Your task to perform on an android device: change notifications settings Image 0: 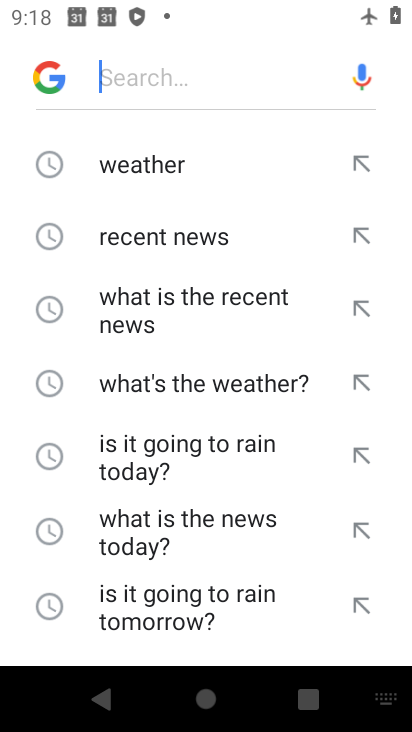
Step 0: press home button
Your task to perform on an android device: change notifications settings Image 1: 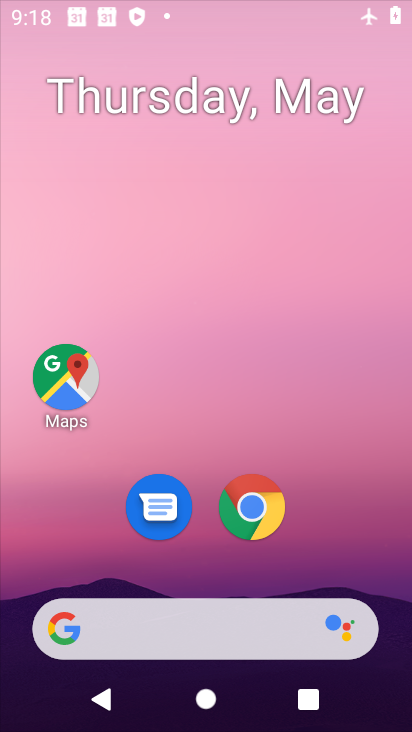
Step 1: drag from (266, 638) to (210, 59)
Your task to perform on an android device: change notifications settings Image 2: 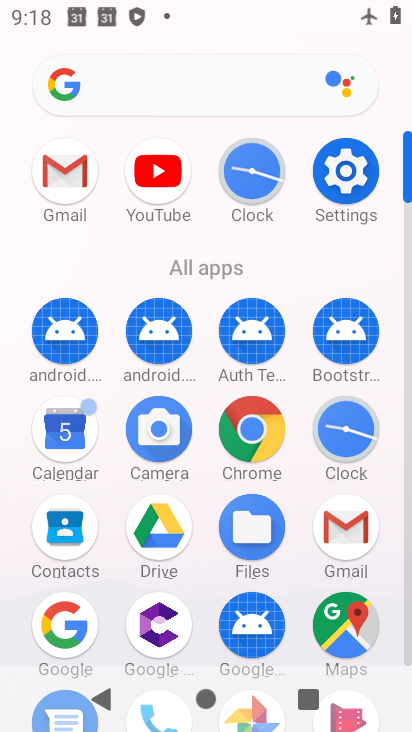
Step 2: click (362, 182)
Your task to perform on an android device: change notifications settings Image 3: 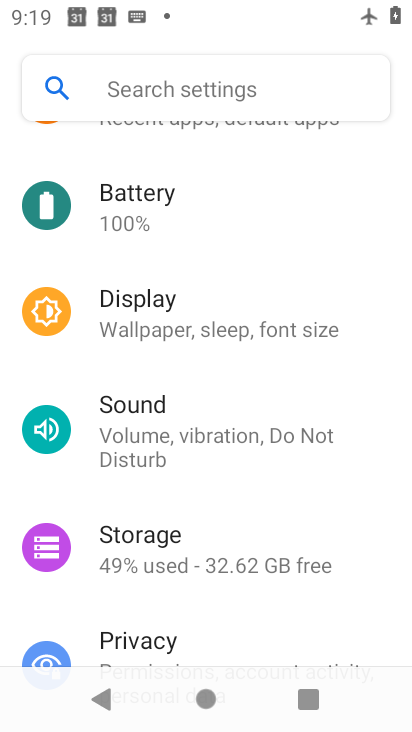
Step 3: drag from (289, 295) to (344, 520)
Your task to perform on an android device: change notifications settings Image 4: 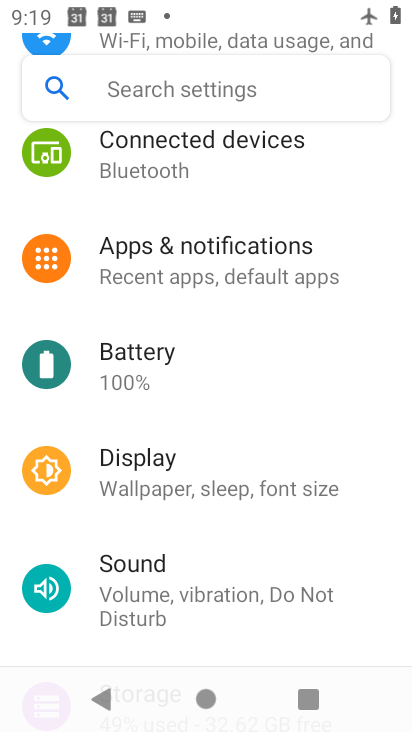
Step 4: click (234, 271)
Your task to perform on an android device: change notifications settings Image 5: 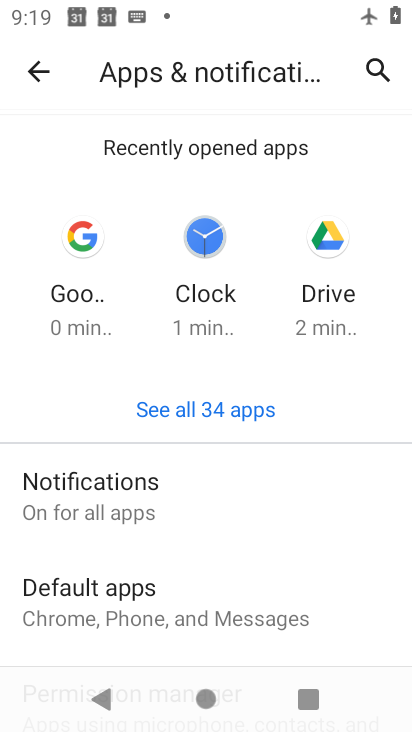
Step 5: drag from (235, 514) to (275, 309)
Your task to perform on an android device: change notifications settings Image 6: 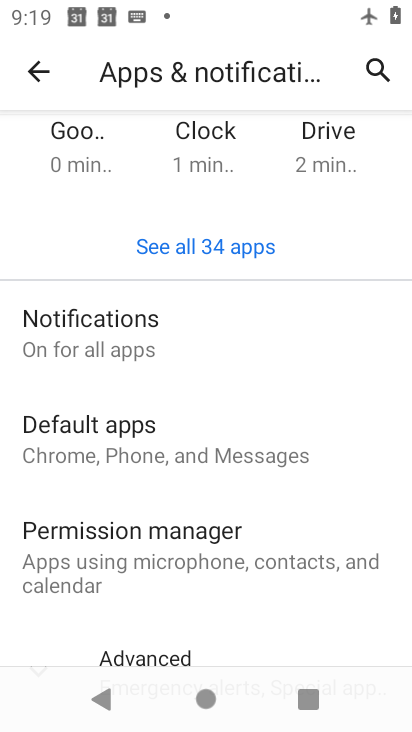
Step 6: click (257, 344)
Your task to perform on an android device: change notifications settings Image 7: 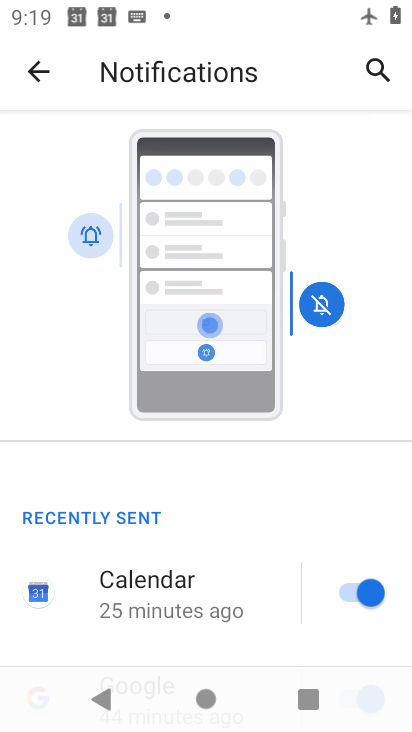
Step 7: drag from (241, 465) to (290, 139)
Your task to perform on an android device: change notifications settings Image 8: 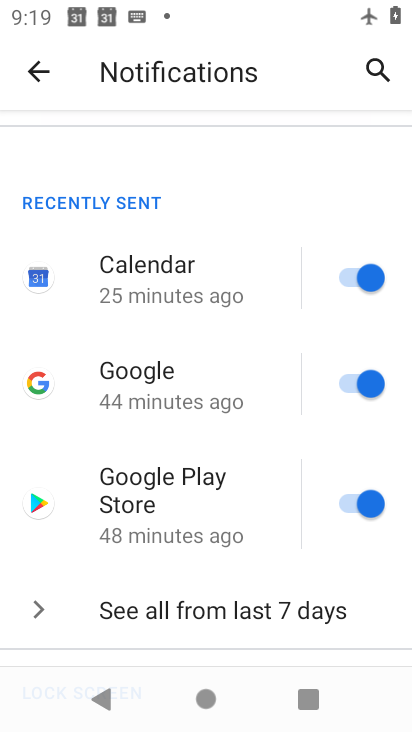
Step 8: drag from (231, 460) to (265, 246)
Your task to perform on an android device: change notifications settings Image 9: 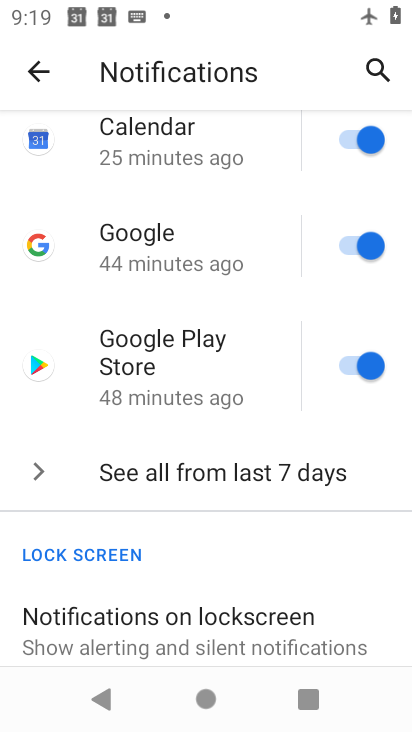
Step 9: drag from (314, 285) to (283, 658)
Your task to perform on an android device: change notifications settings Image 10: 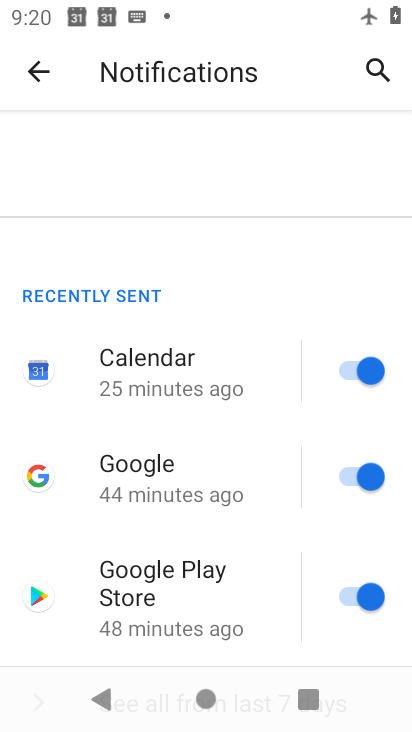
Step 10: click (349, 379)
Your task to perform on an android device: change notifications settings Image 11: 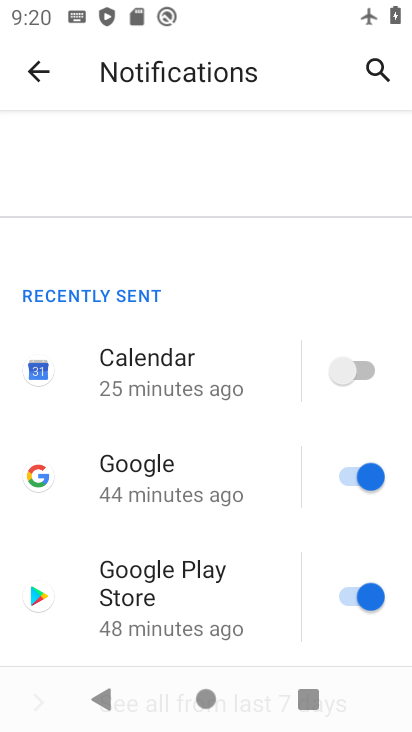
Step 11: task complete